Your task to perform on an android device: turn notification dots on Image 0: 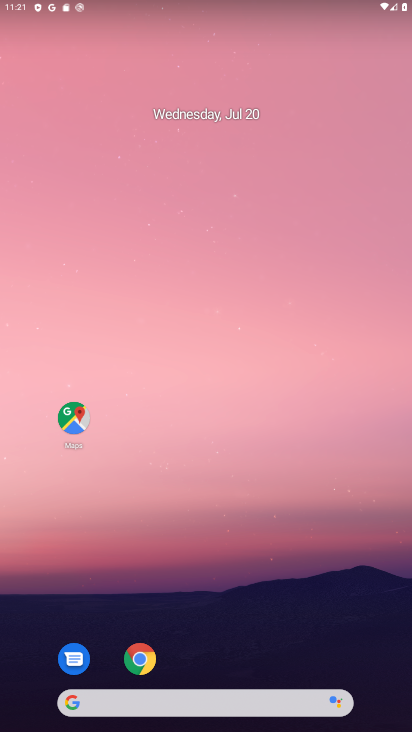
Step 0: drag from (386, 664) to (325, 59)
Your task to perform on an android device: turn notification dots on Image 1: 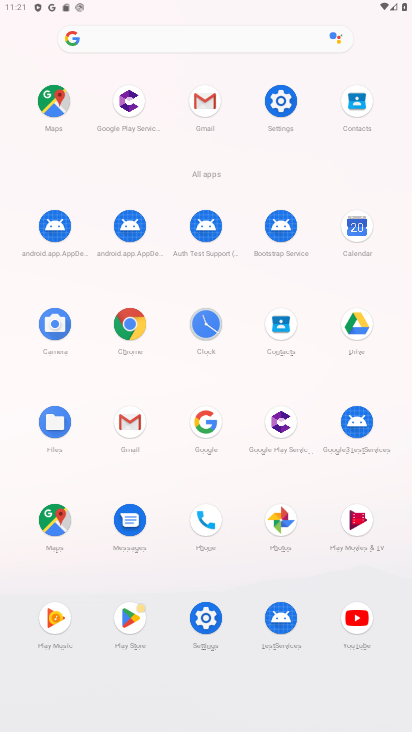
Step 1: click (209, 618)
Your task to perform on an android device: turn notification dots on Image 2: 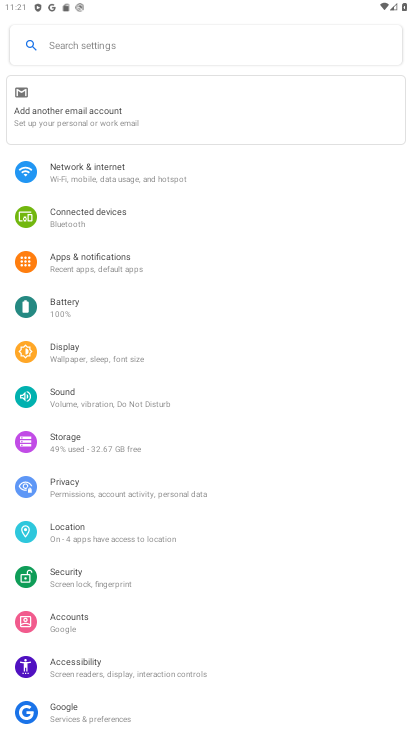
Step 2: click (121, 256)
Your task to perform on an android device: turn notification dots on Image 3: 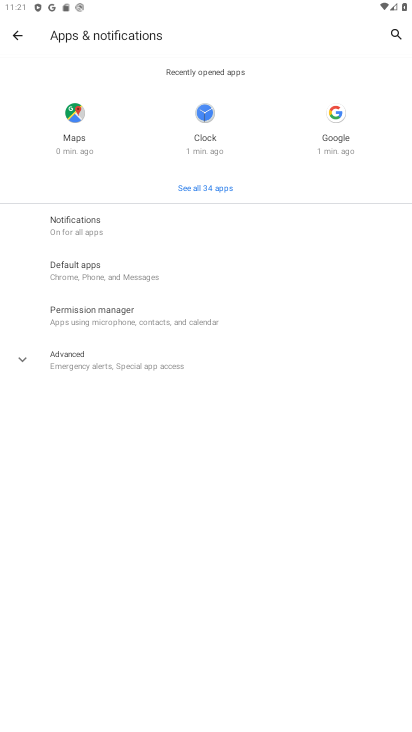
Step 3: click (68, 227)
Your task to perform on an android device: turn notification dots on Image 4: 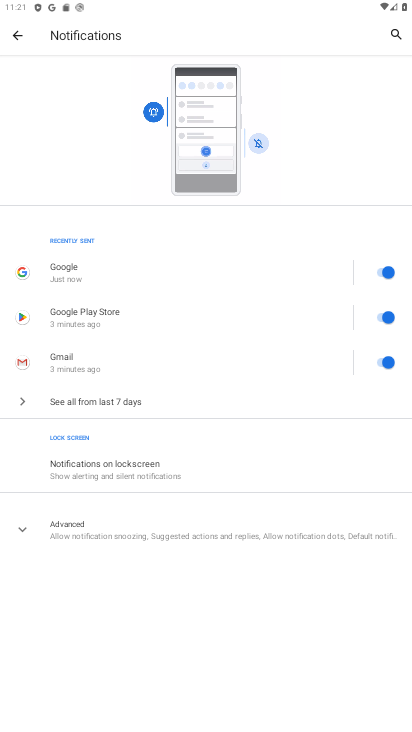
Step 4: click (21, 531)
Your task to perform on an android device: turn notification dots on Image 5: 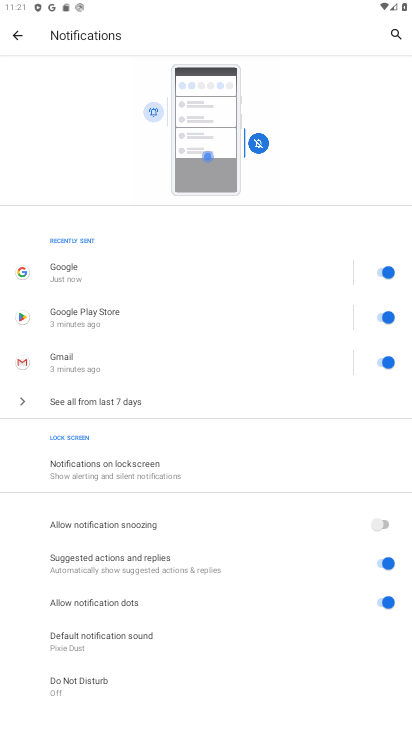
Step 5: task complete